Your task to perform on an android device: open device folders in google photos Image 0: 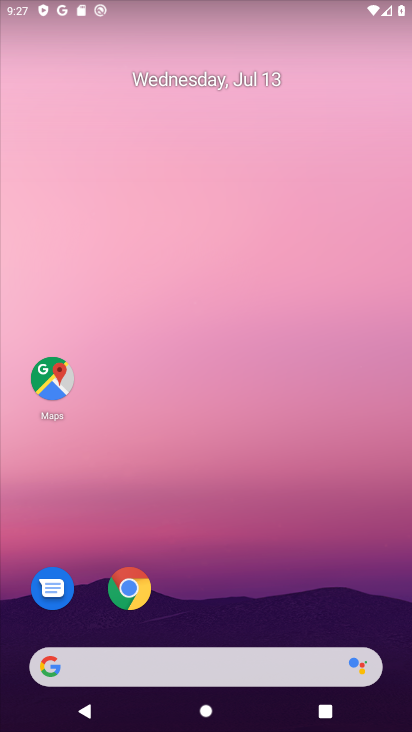
Step 0: drag from (225, 597) to (241, 4)
Your task to perform on an android device: open device folders in google photos Image 1: 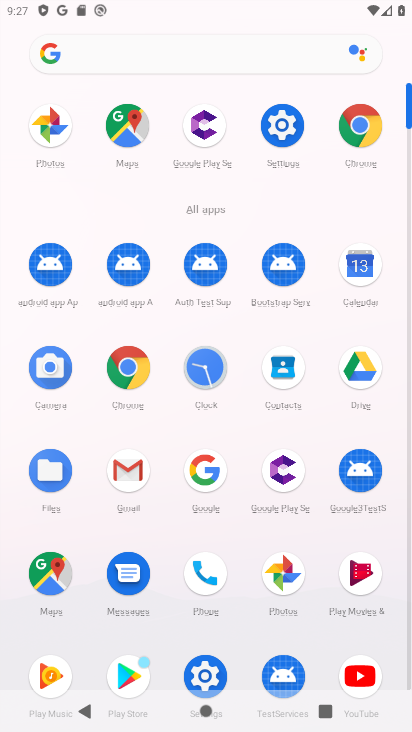
Step 1: click (286, 574)
Your task to perform on an android device: open device folders in google photos Image 2: 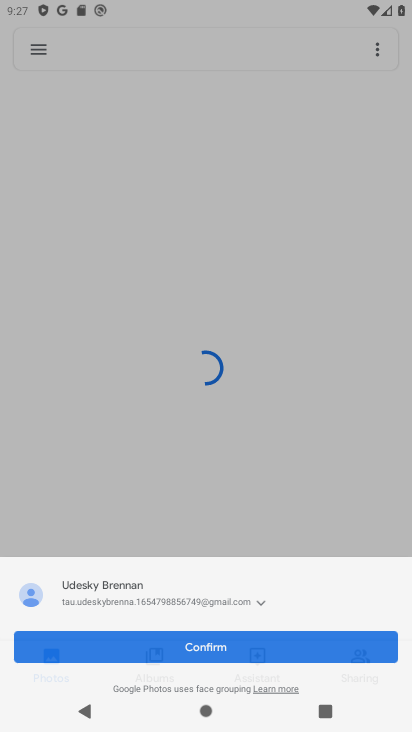
Step 2: click (37, 52)
Your task to perform on an android device: open device folders in google photos Image 3: 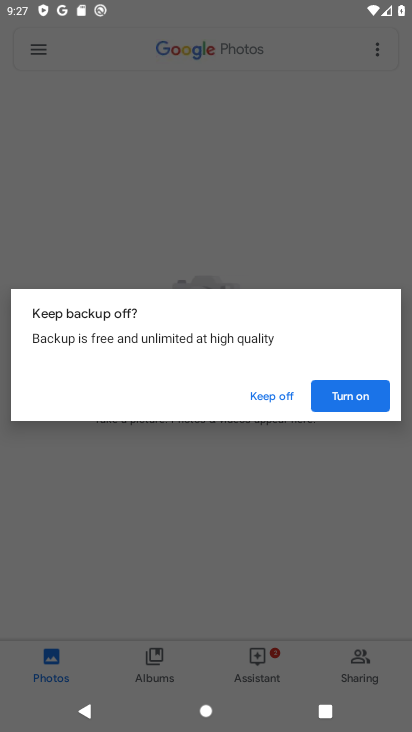
Step 3: click (337, 402)
Your task to perform on an android device: open device folders in google photos Image 4: 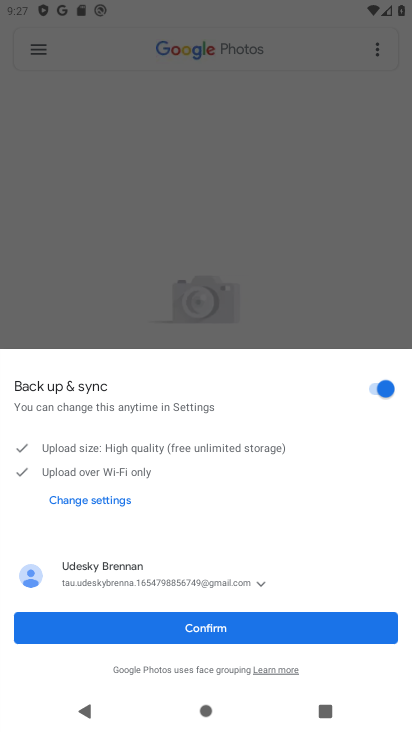
Step 4: click (202, 630)
Your task to perform on an android device: open device folders in google photos Image 5: 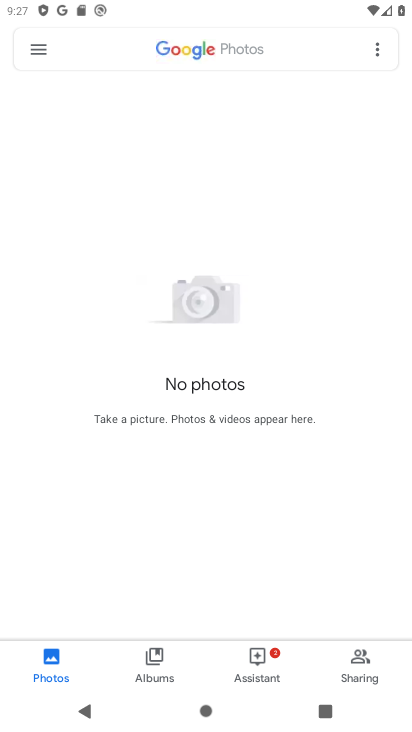
Step 5: click (34, 47)
Your task to perform on an android device: open device folders in google photos Image 6: 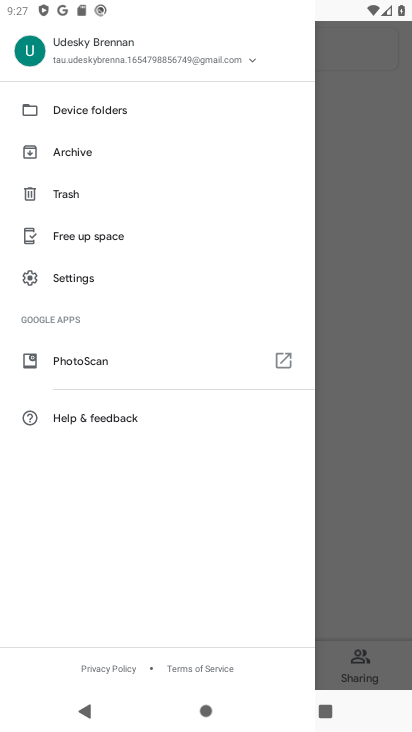
Step 6: click (96, 109)
Your task to perform on an android device: open device folders in google photos Image 7: 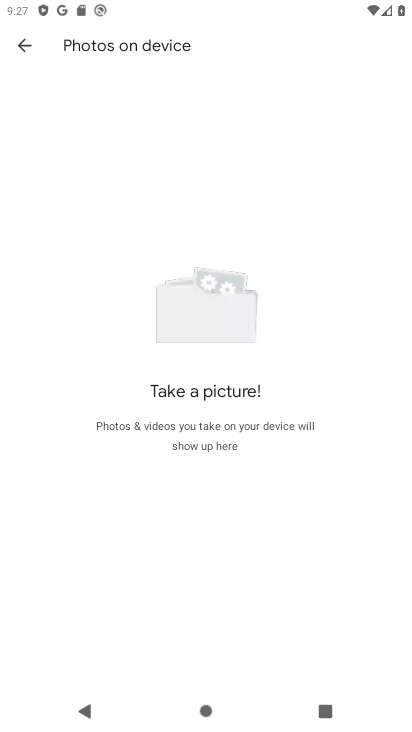
Step 7: task complete